Your task to perform on an android device: Turn off the flashlight Image 0: 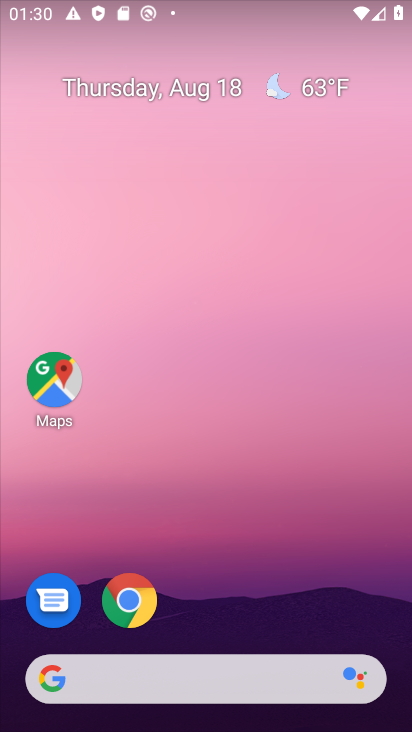
Step 0: drag from (240, 589) to (184, 139)
Your task to perform on an android device: Turn off the flashlight Image 1: 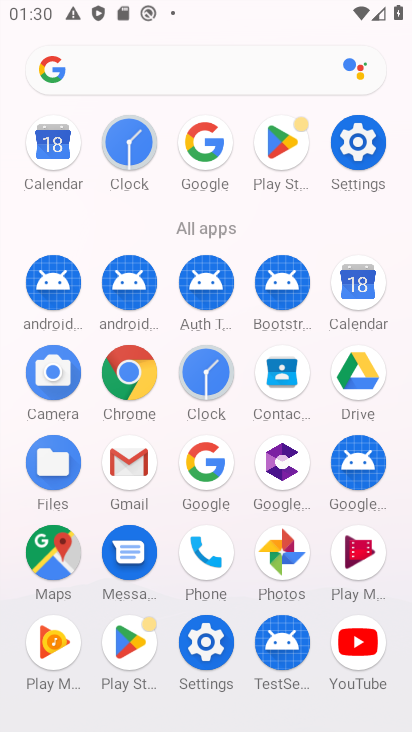
Step 1: click (360, 125)
Your task to perform on an android device: Turn off the flashlight Image 2: 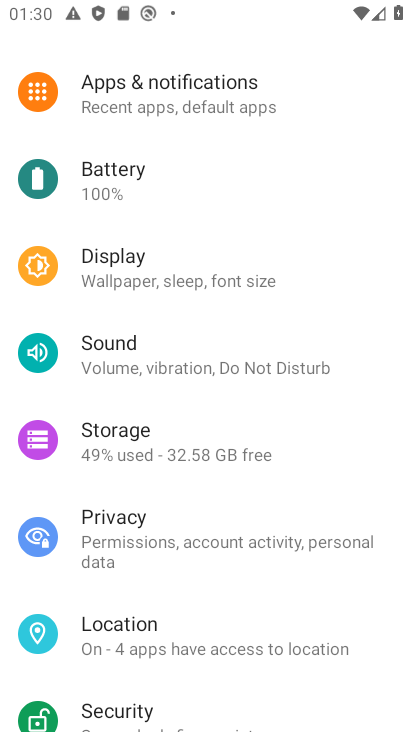
Step 2: click (95, 267)
Your task to perform on an android device: Turn off the flashlight Image 3: 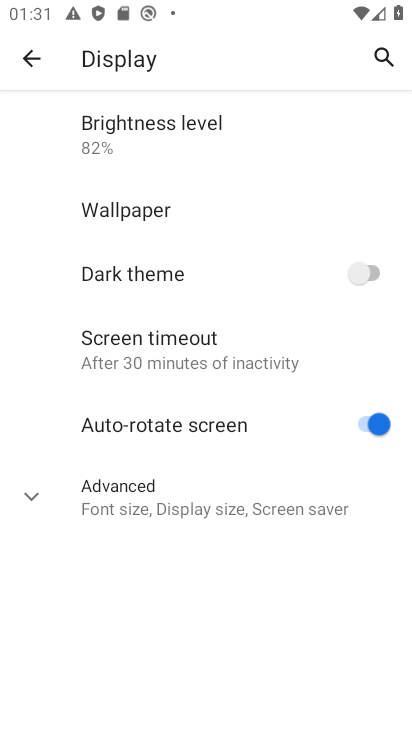
Step 3: task complete